Your task to perform on an android device: allow cookies in the chrome app Image 0: 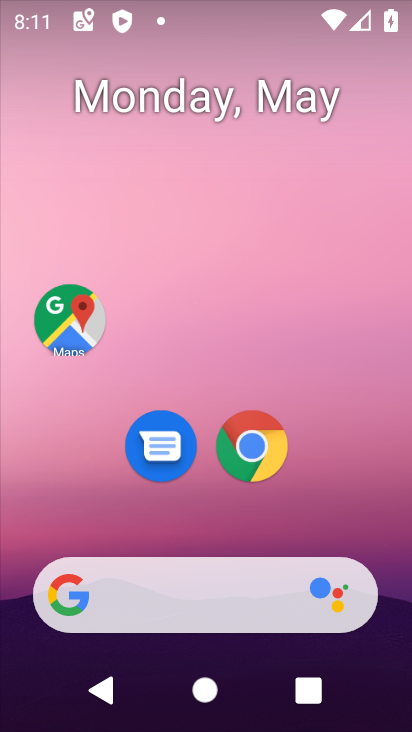
Step 0: click (270, 465)
Your task to perform on an android device: allow cookies in the chrome app Image 1: 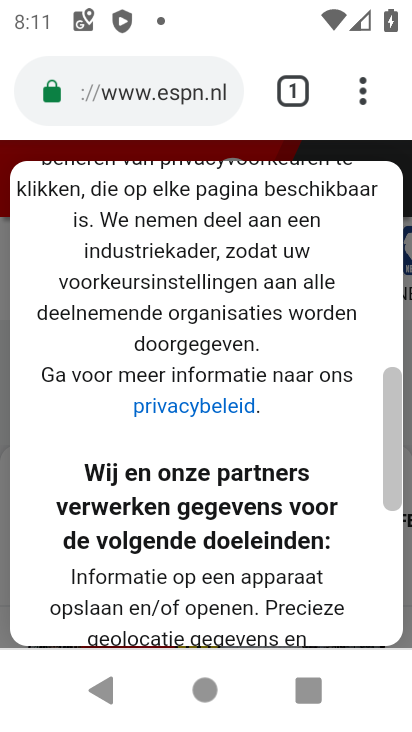
Step 1: drag from (316, 553) to (286, 253)
Your task to perform on an android device: allow cookies in the chrome app Image 2: 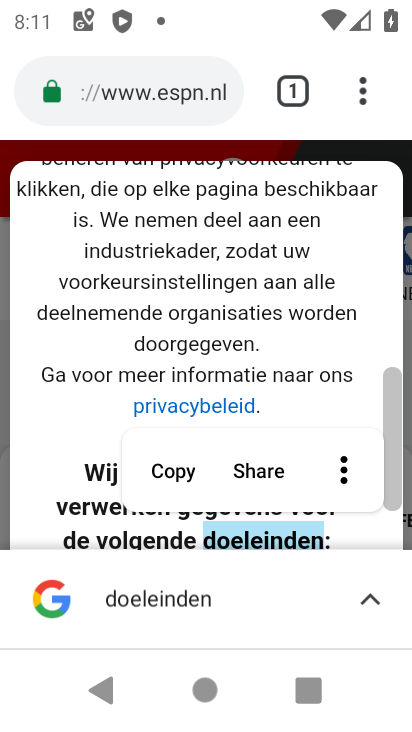
Step 2: drag from (317, 404) to (295, 15)
Your task to perform on an android device: allow cookies in the chrome app Image 3: 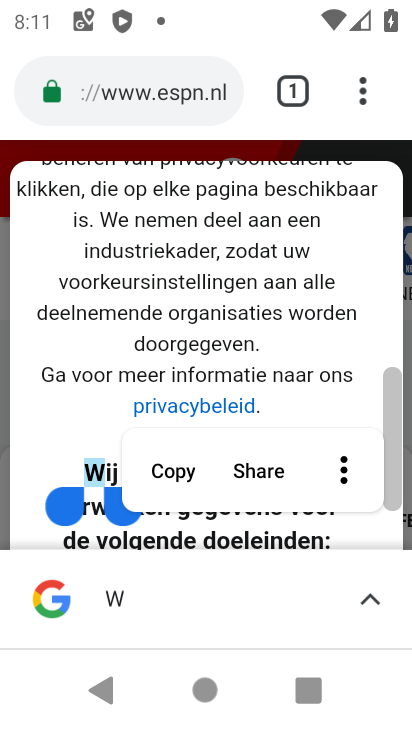
Step 3: click (354, 293)
Your task to perform on an android device: allow cookies in the chrome app Image 4: 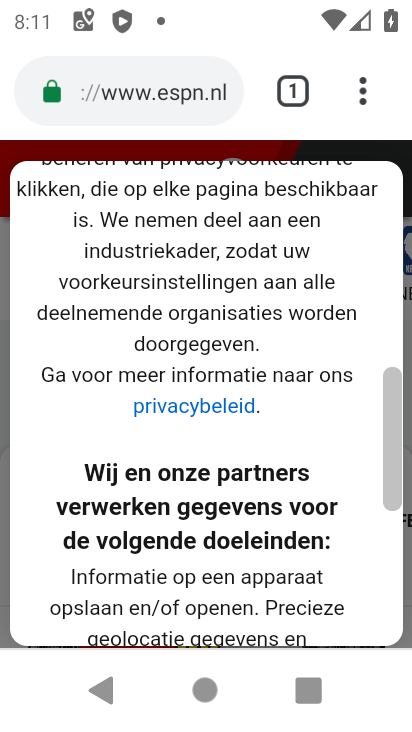
Step 4: click (305, 348)
Your task to perform on an android device: allow cookies in the chrome app Image 5: 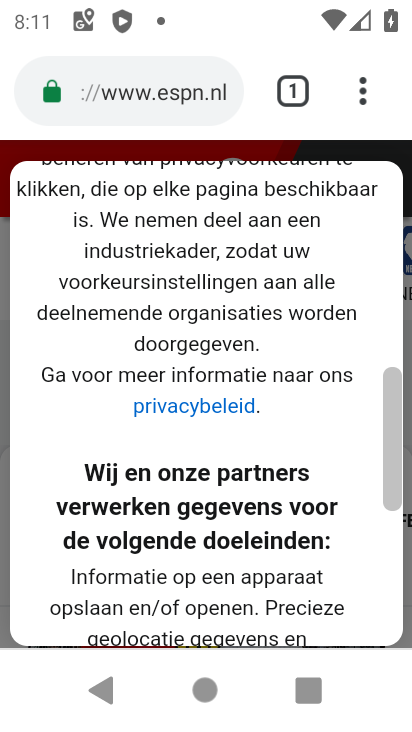
Step 5: drag from (324, 439) to (305, 60)
Your task to perform on an android device: allow cookies in the chrome app Image 6: 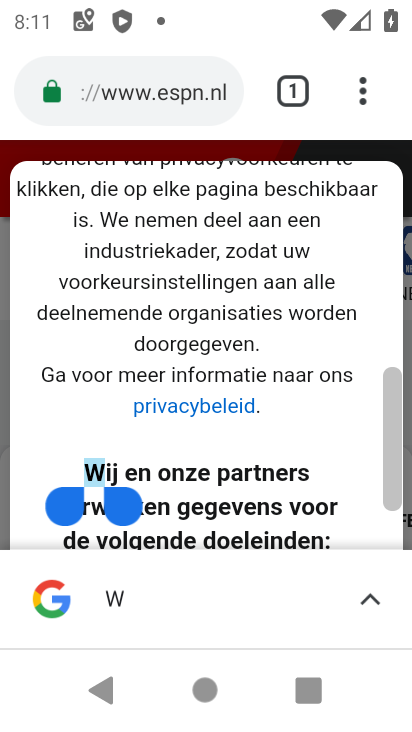
Step 6: click (374, 100)
Your task to perform on an android device: allow cookies in the chrome app Image 7: 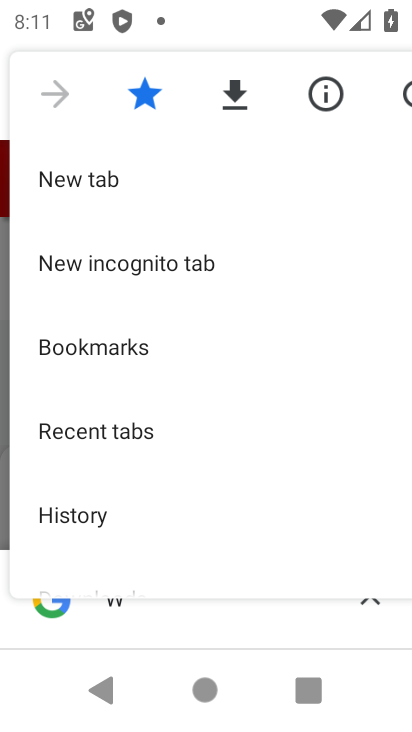
Step 7: drag from (328, 557) to (292, 165)
Your task to perform on an android device: allow cookies in the chrome app Image 8: 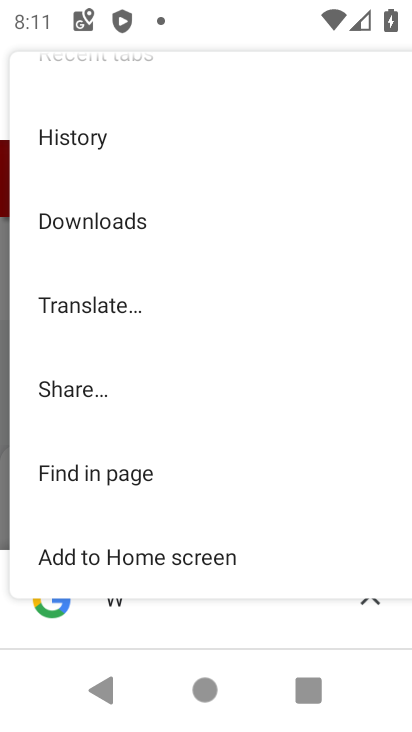
Step 8: drag from (252, 474) to (227, 130)
Your task to perform on an android device: allow cookies in the chrome app Image 9: 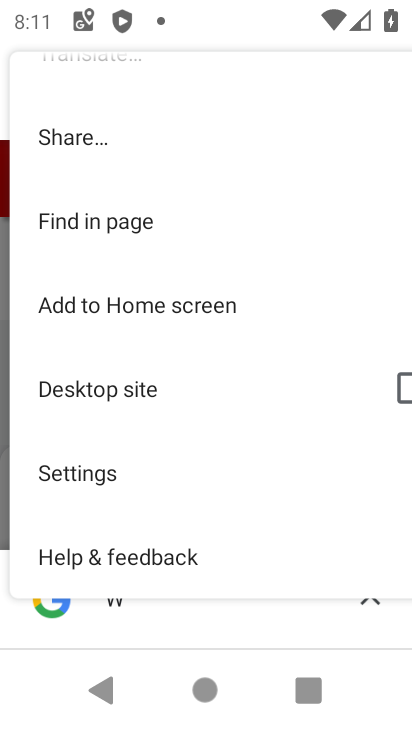
Step 9: click (233, 464)
Your task to perform on an android device: allow cookies in the chrome app Image 10: 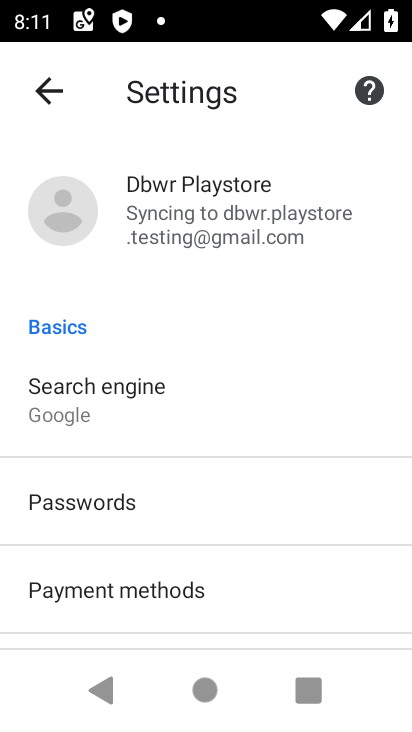
Step 10: drag from (253, 514) to (214, 18)
Your task to perform on an android device: allow cookies in the chrome app Image 11: 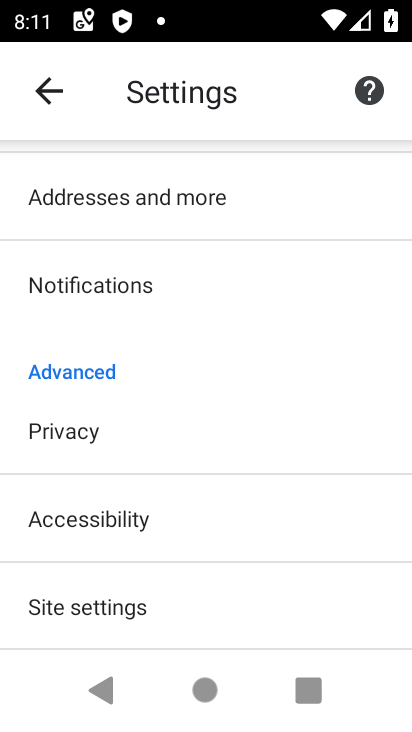
Step 11: click (184, 604)
Your task to perform on an android device: allow cookies in the chrome app Image 12: 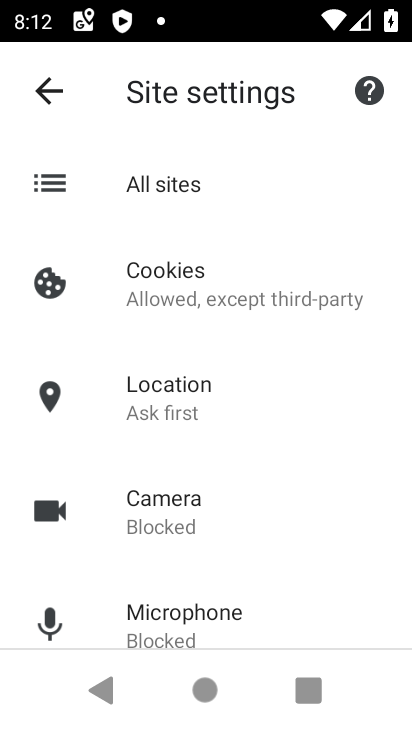
Step 12: click (184, 604)
Your task to perform on an android device: allow cookies in the chrome app Image 13: 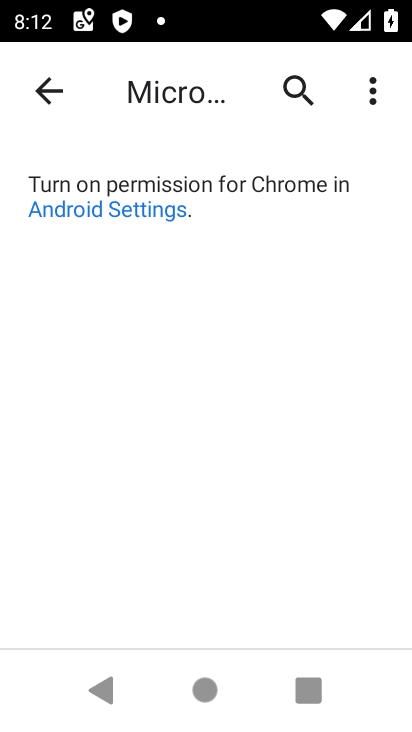
Step 13: click (47, 86)
Your task to perform on an android device: allow cookies in the chrome app Image 14: 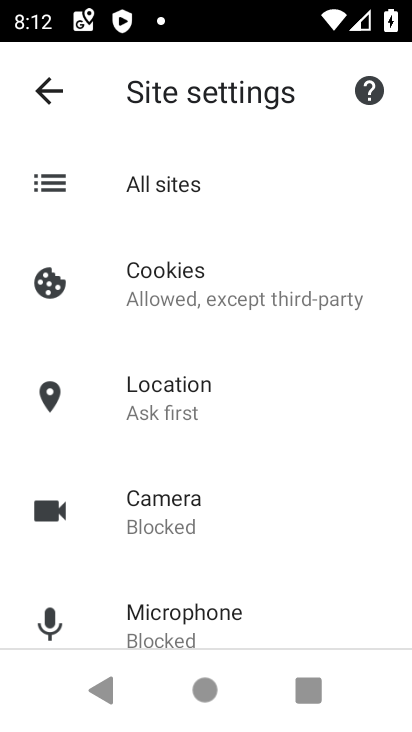
Step 14: click (181, 295)
Your task to perform on an android device: allow cookies in the chrome app Image 15: 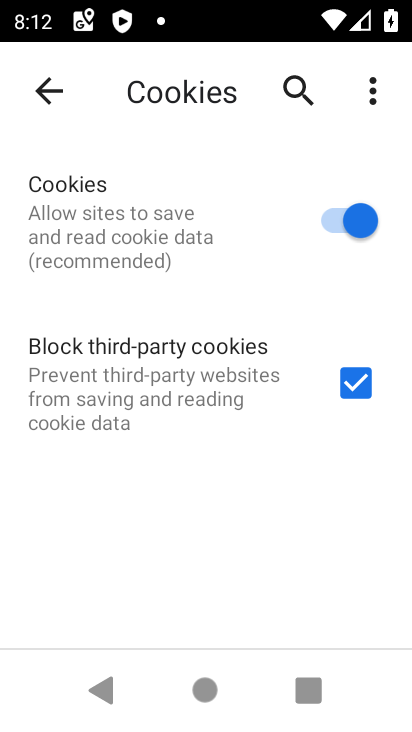
Step 15: click (369, 386)
Your task to perform on an android device: allow cookies in the chrome app Image 16: 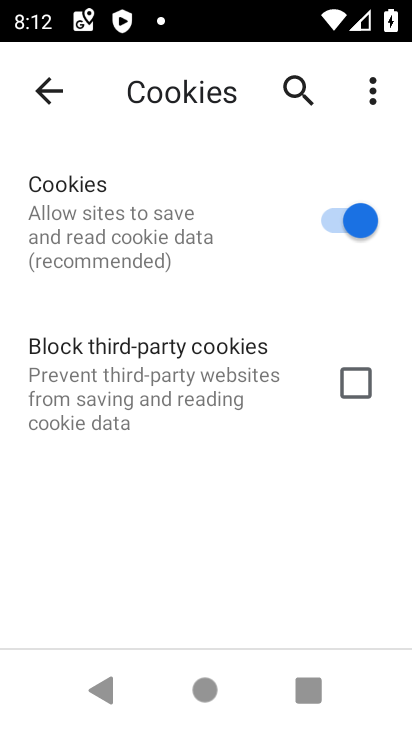
Step 16: task complete